Your task to perform on an android device: Go to battery settings Image 0: 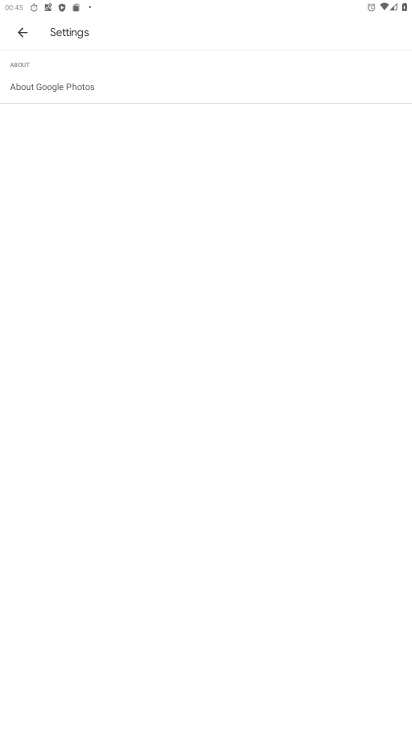
Step 0: drag from (272, 10) to (298, 588)
Your task to perform on an android device: Go to battery settings Image 1: 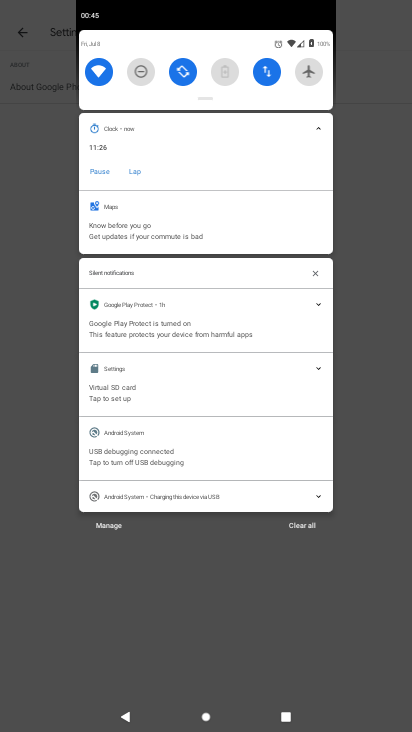
Step 1: click (218, 76)
Your task to perform on an android device: Go to battery settings Image 2: 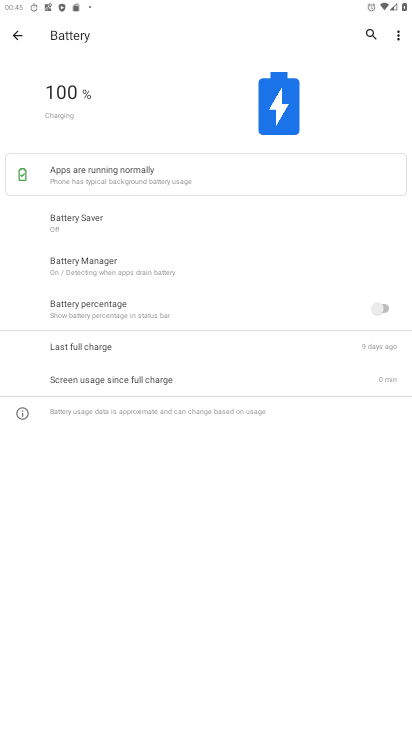
Step 2: task complete